Your task to perform on an android device: Turn off the flashlight Image 0: 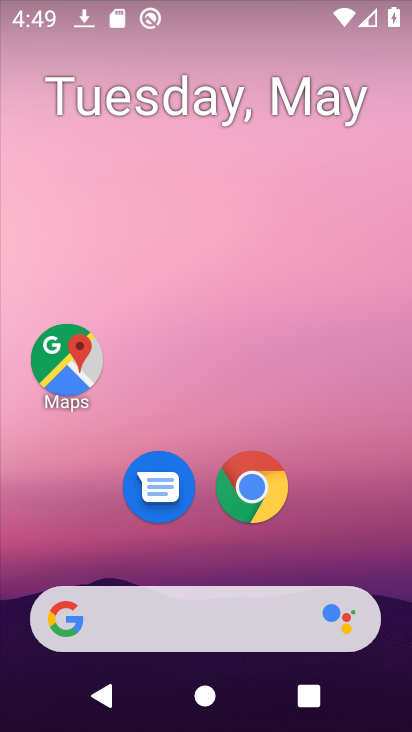
Step 0: drag from (348, 532) to (353, 25)
Your task to perform on an android device: Turn off the flashlight Image 1: 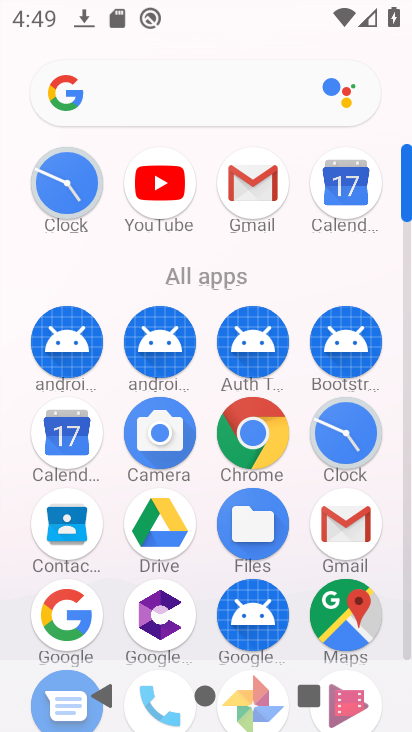
Step 1: click (405, 645)
Your task to perform on an android device: Turn off the flashlight Image 2: 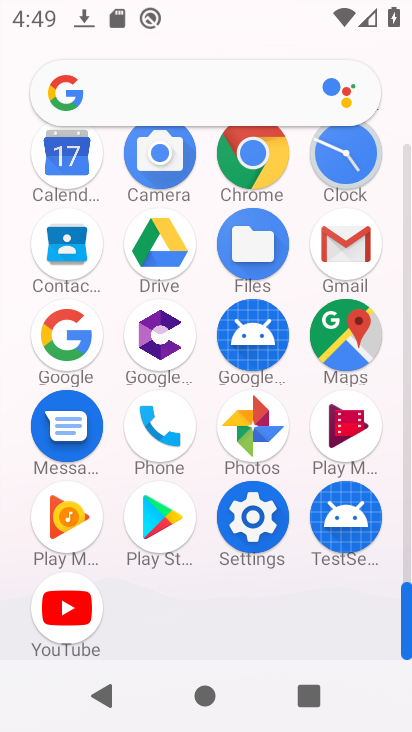
Step 2: click (245, 540)
Your task to perform on an android device: Turn off the flashlight Image 3: 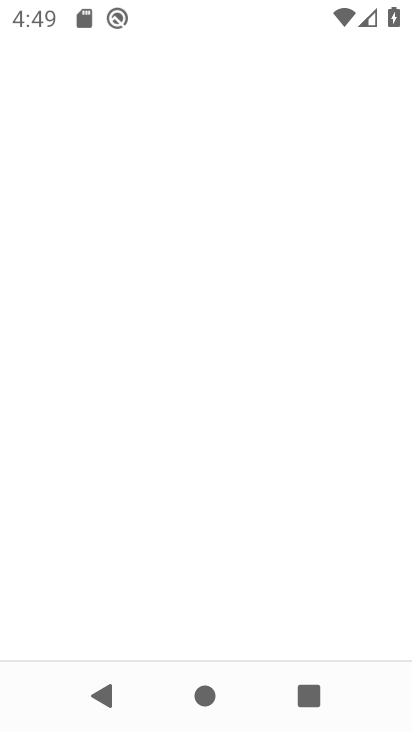
Step 3: click (197, 306)
Your task to perform on an android device: Turn off the flashlight Image 4: 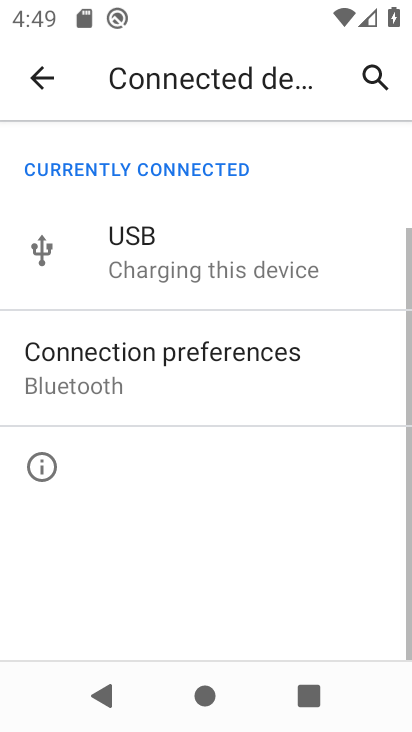
Step 4: task complete